Your task to perform on an android device: find snoozed emails in the gmail app Image 0: 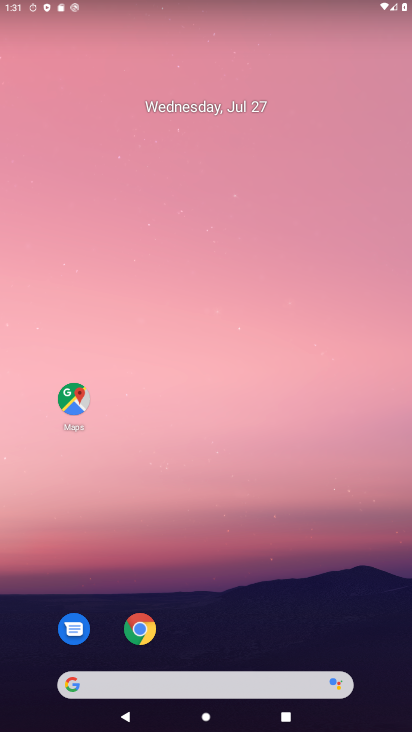
Step 0: press home button
Your task to perform on an android device: find snoozed emails in the gmail app Image 1: 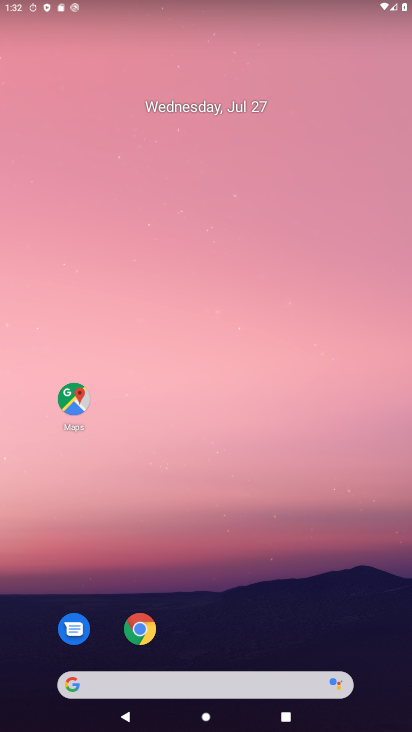
Step 1: drag from (232, 629) to (252, 156)
Your task to perform on an android device: find snoozed emails in the gmail app Image 2: 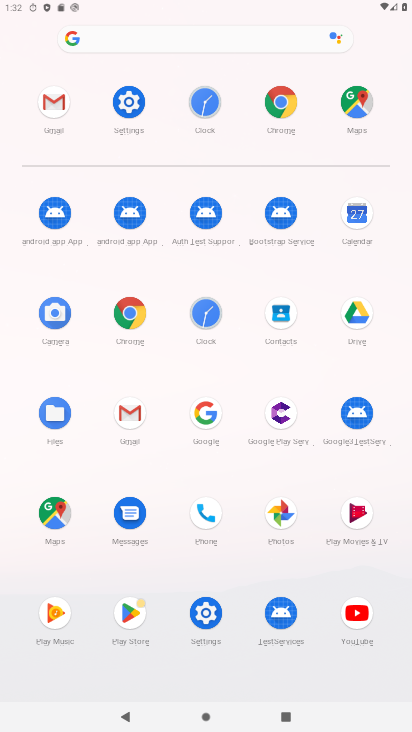
Step 2: click (57, 107)
Your task to perform on an android device: find snoozed emails in the gmail app Image 3: 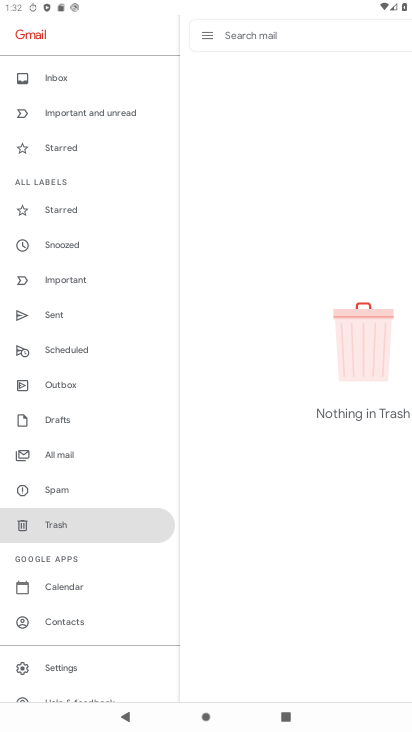
Step 3: click (58, 249)
Your task to perform on an android device: find snoozed emails in the gmail app Image 4: 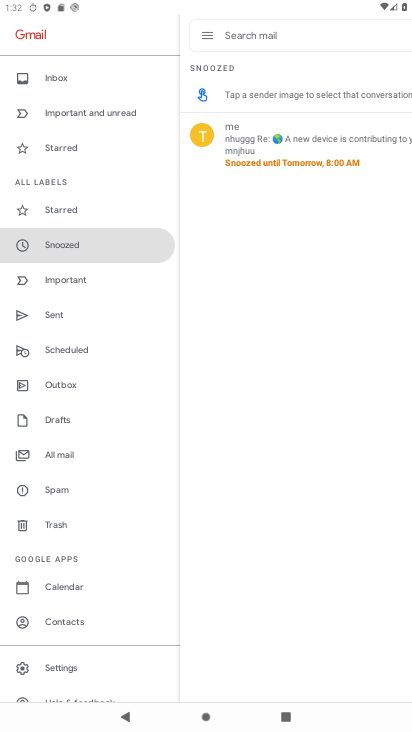
Step 4: click (279, 149)
Your task to perform on an android device: find snoozed emails in the gmail app Image 5: 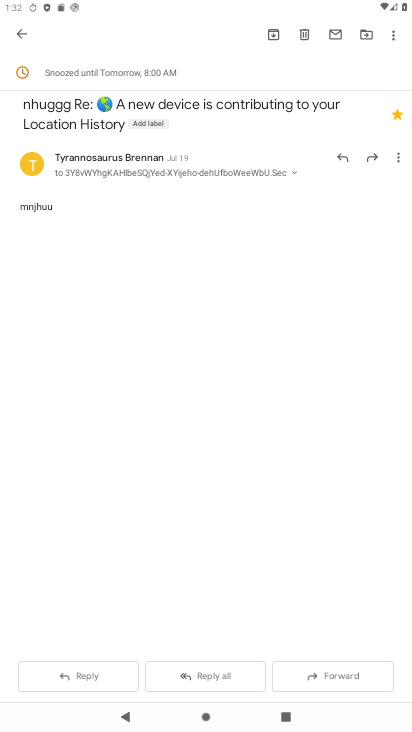
Step 5: task complete